Your task to perform on an android device: Set the phone to "Do not disturb". Image 0: 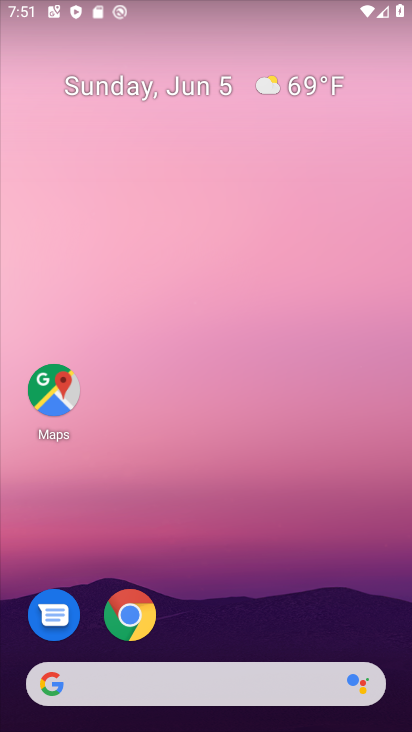
Step 0: drag from (215, 618) to (214, 15)
Your task to perform on an android device: Set the phone to "Do not disturb". Image 1: 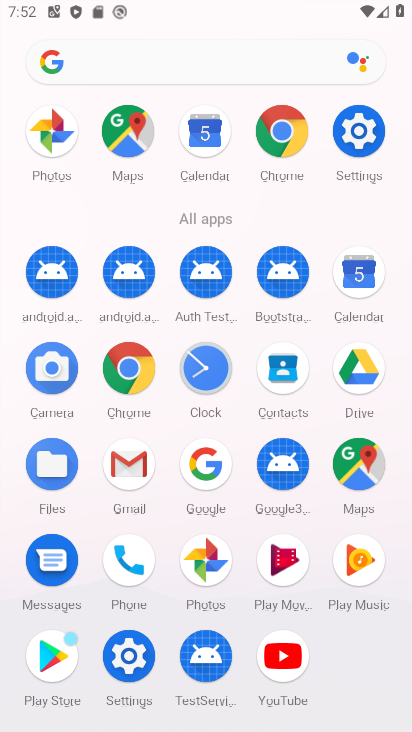
Step 1: click (349, 120)
Your task to perform on an android device: Set the phone to "Do not disturb". Image 2: 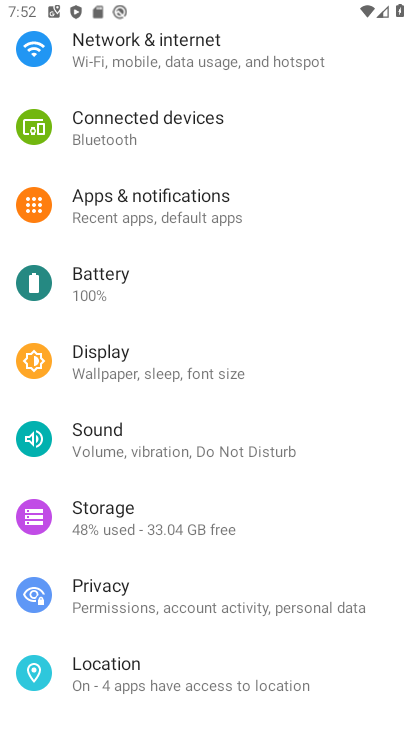
Step 2: drag from (224, 257) to (237, 728)
Your task to perform on an android device: Set the phone to "Do not disturb". Image 3: 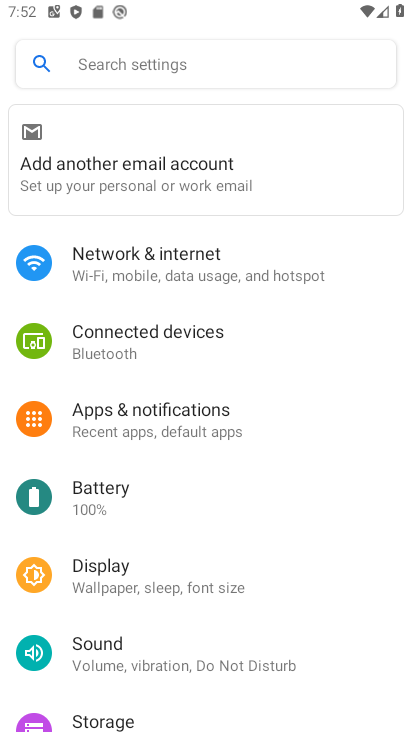
Step 3: click (140, 651)
Your task to perform on an android device: Set the phone to "Do not disturb". Image 4: 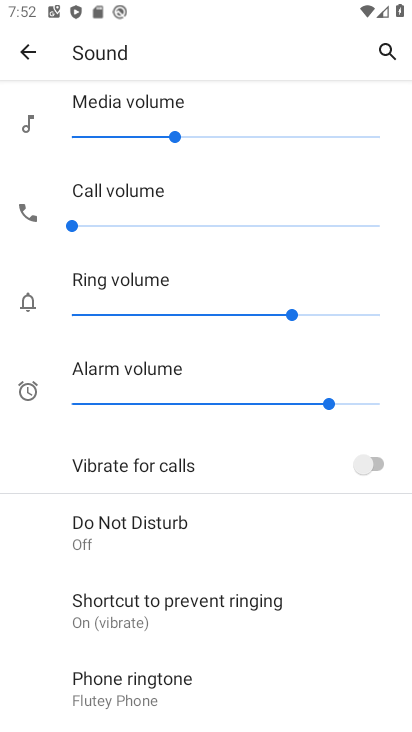
Step 4: click (172, 559)
Your task to perform on an android device: Set the phone to "Do not disturb". Image 5: 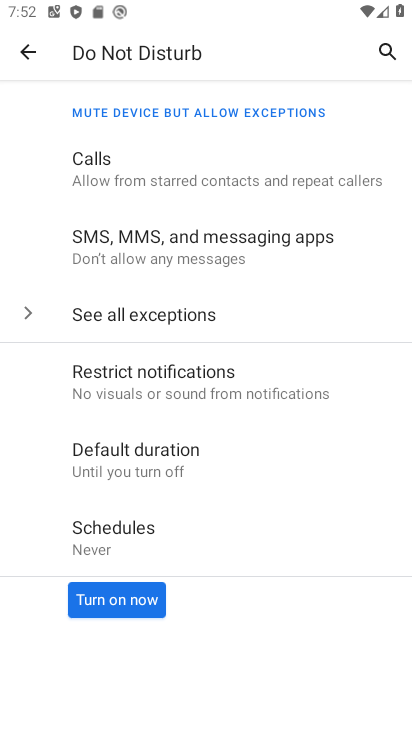
Step 5: click (131, 615)
Your task to perform on an android device: Set the phone to "Do not disturb". Image 6: 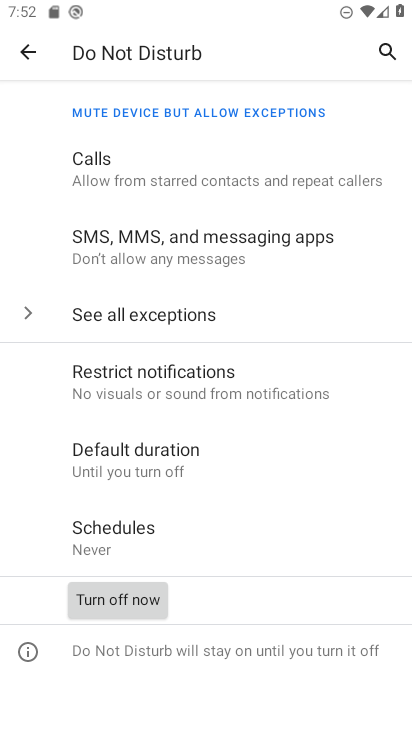
Step 6: task complete